Your task to perform on an android device: check data usage Image 0: 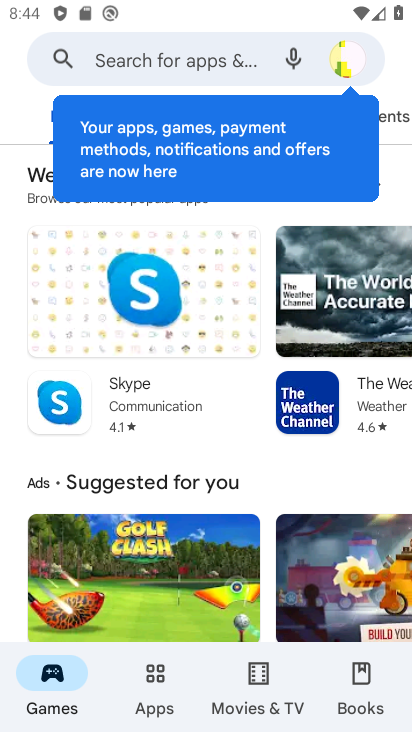
Step 0: press home button
Your task to perform on an android device: check data usage Image 1: 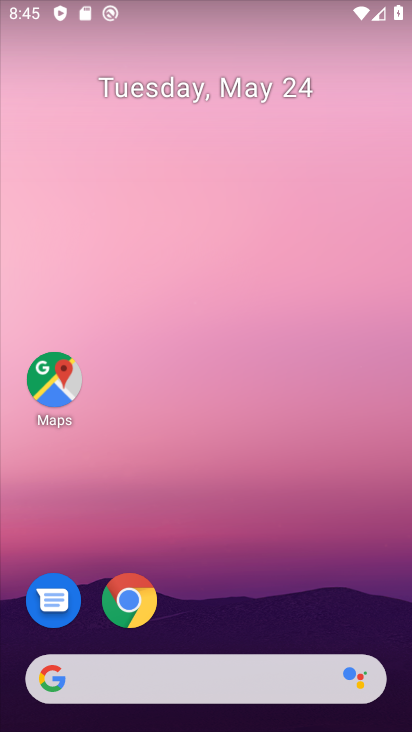
Step 1: drag from (198, 7) to (197, 592)
Your task to perform on an android device: check data usage Image 2: 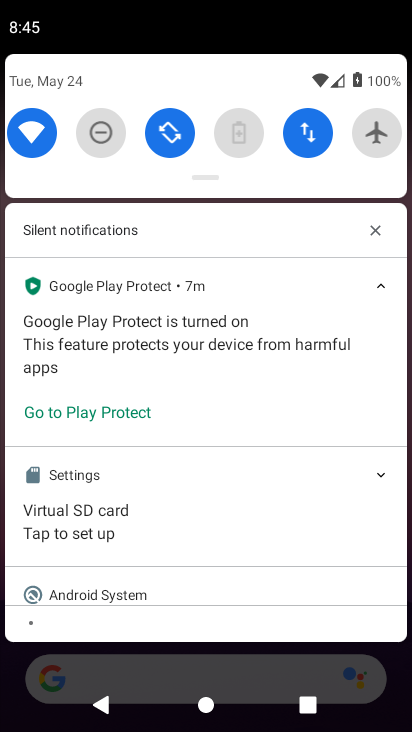
Step 2: click (313, 127)
Your task to perform on an android device: check data usage Image 3: 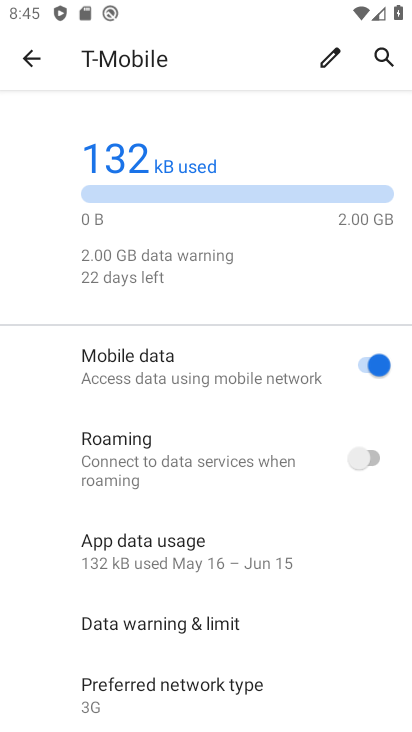
Step 3: task complete